Your task to perform on an android device: What is the capital of Italy? Image 0: 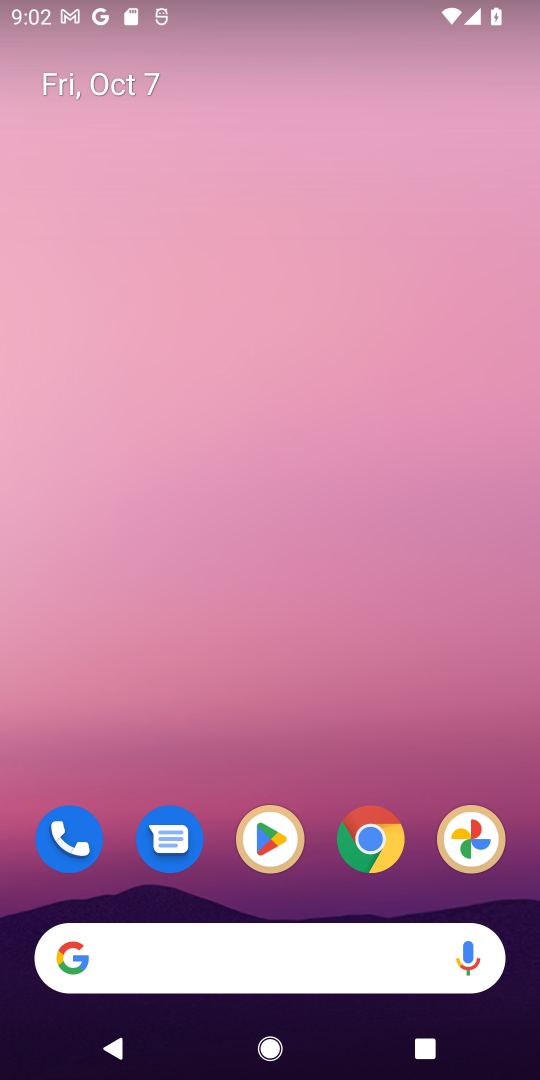
Step 0: click (370, 842)
Your task to perform on an android device: What is the capital of Italy? Image 1: 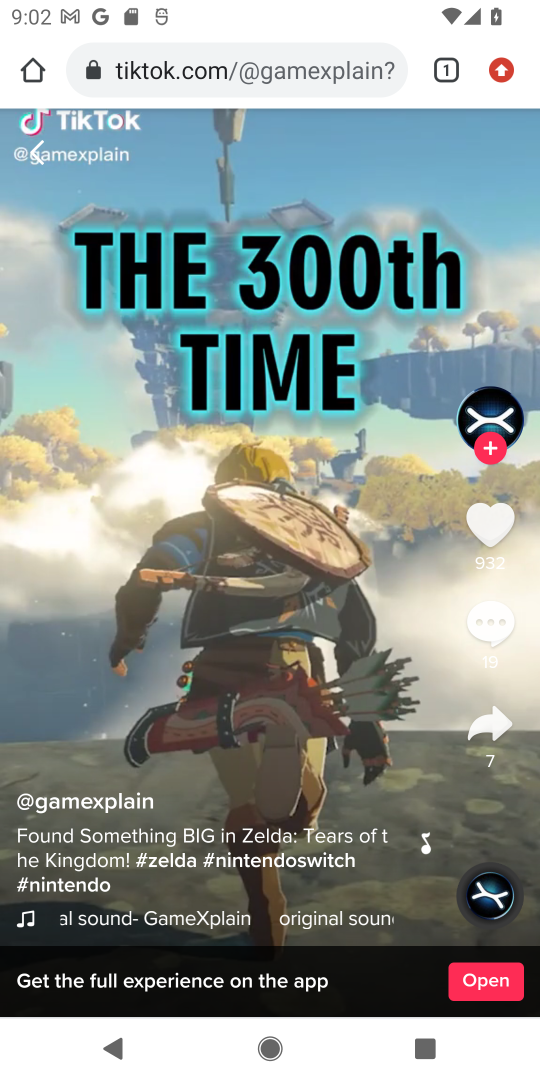
Step 1: click (254, 62)
Your task to perform on an android device: What is the capital of Italy? Image 2: 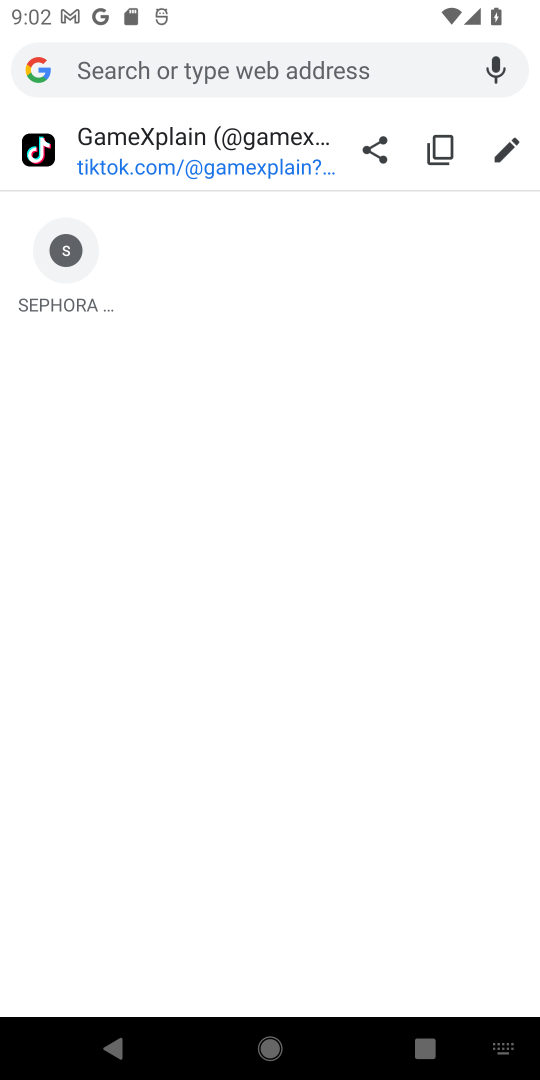
Step 2: type "capital of italy"
Your task to perform on an android device: What is the capital of Italy? Image 3: 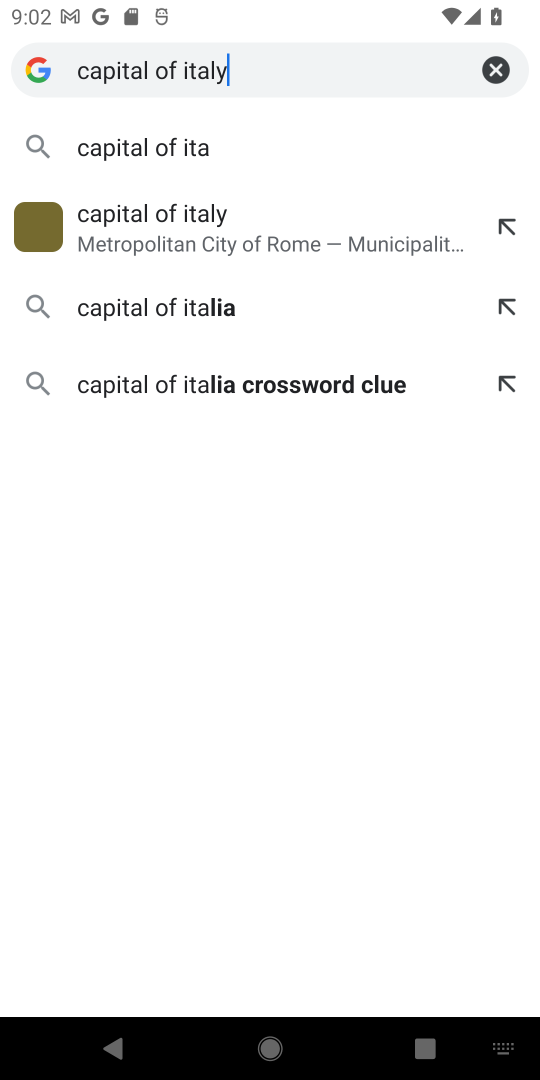
Step 3: type ""
Your task to perform on an android device: What is the capital of Italy? Image 4: 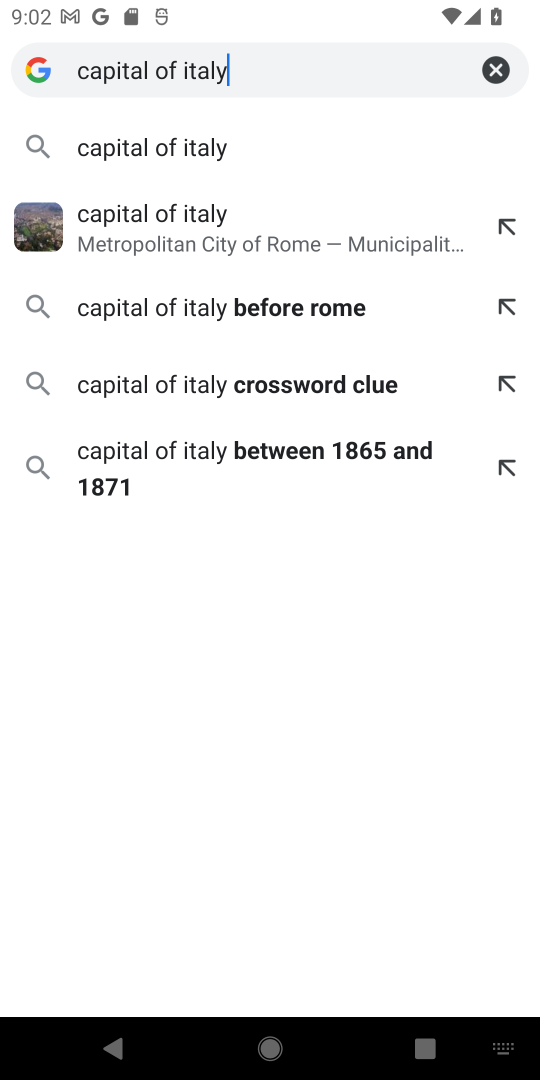
Step 4: click (128, 237)
Your task to perform on an android device: What is the capital of Italy? Image 5: 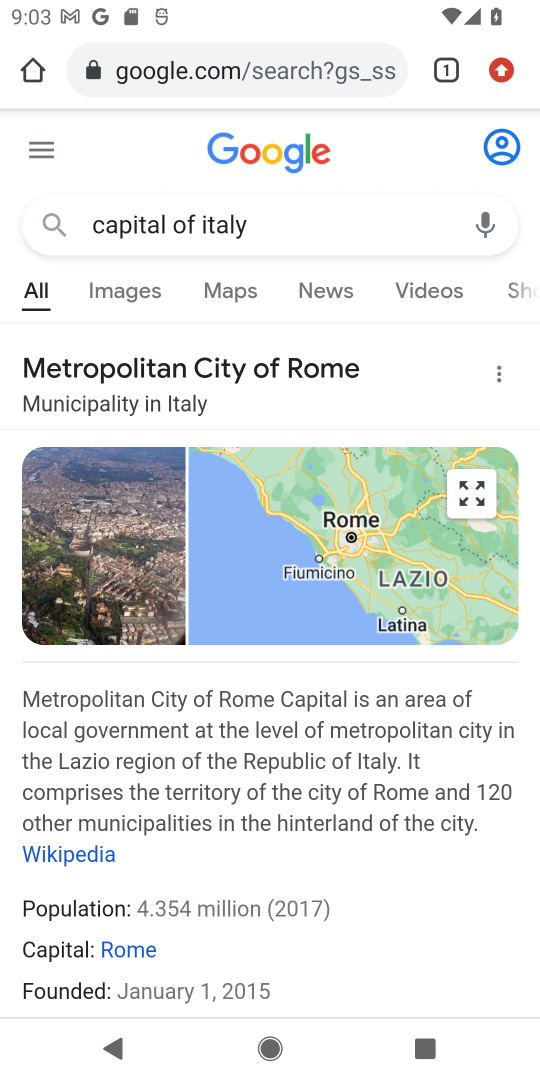
Step 5: drag from (164, 812) to (265, 257)
Your task to perform on an android device: What is the capital of Italy? Image 6: 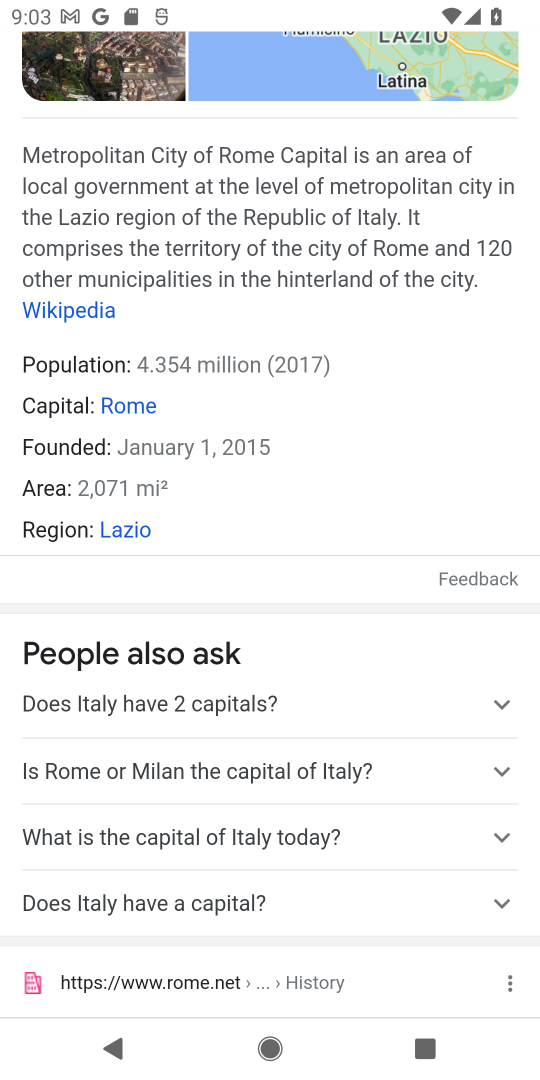
Step 6: drag from (311, 868) to (455, 235)
Your task to perform on an android device: What is the capital of Italy? Image 7: 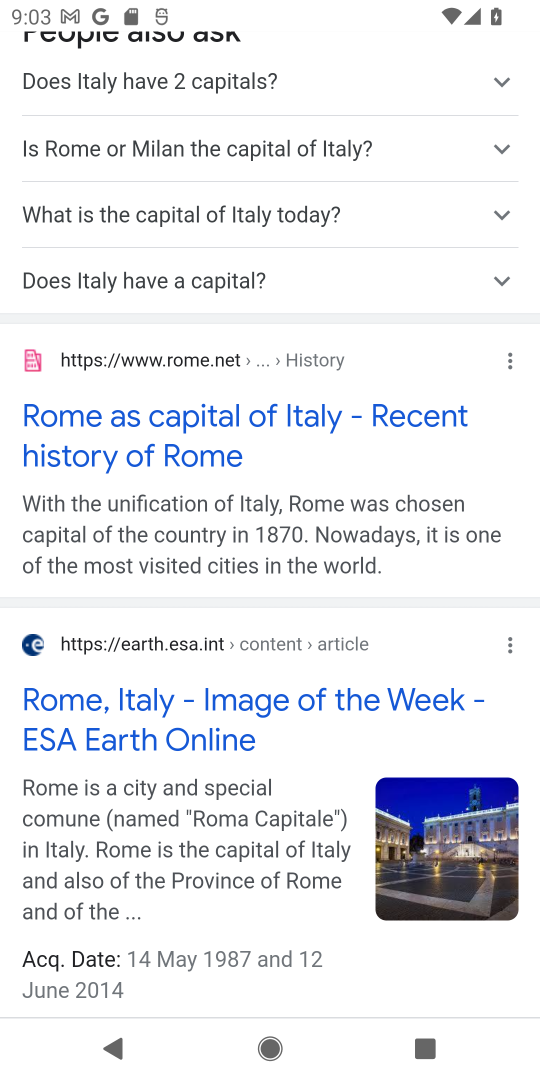
Step 7: drag from (215, 757) to (248, 432)
Your task to perform on an android device: What is the capital of Italy? Image 8: 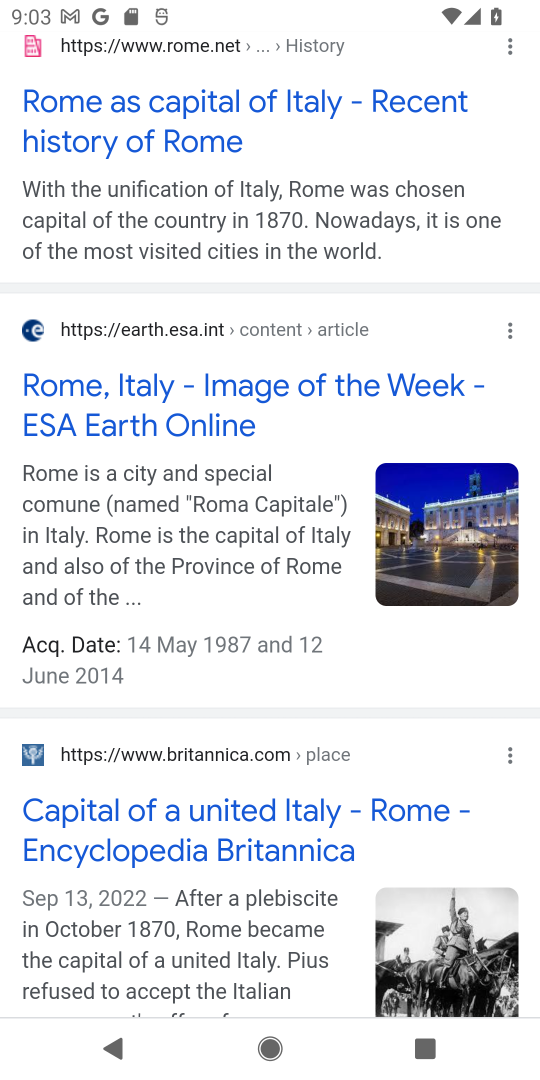
Step 8: click (175, 103)
Your task to perform on an android device: What is the capital of Italy? Image 9: 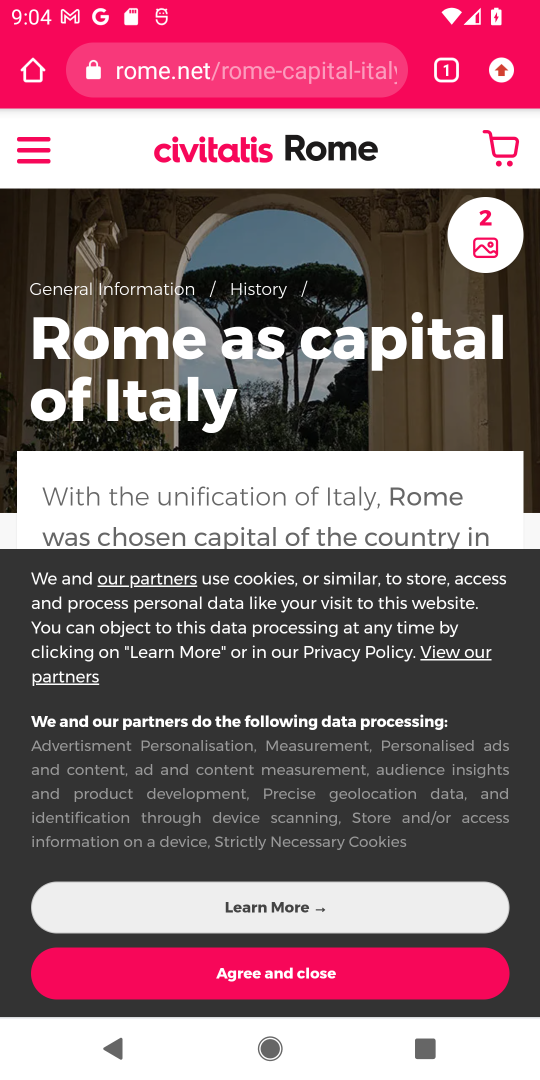
Step 9: task complete